Your task to perform on an android device: Open maps Image 0: 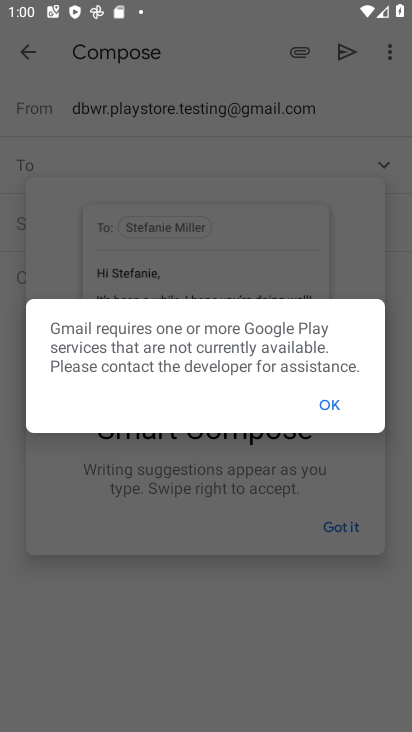
Step 0: press home button
Your task to perform on an android device: Open maps Image 1: 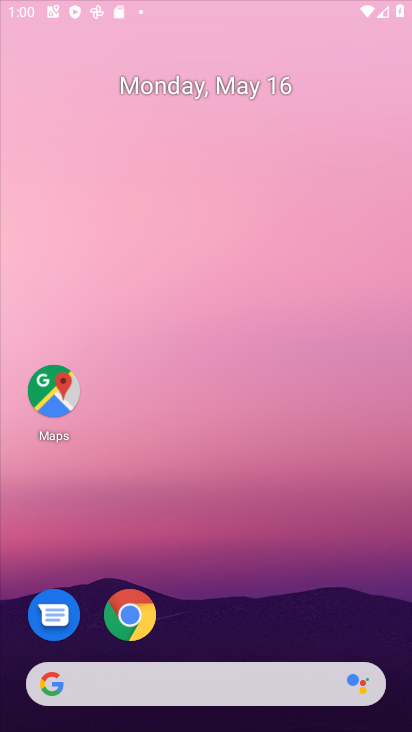
Step 1: drag from (317, 724) to (240, 68)
Your task to perform on an android device: Open maps Image 2: 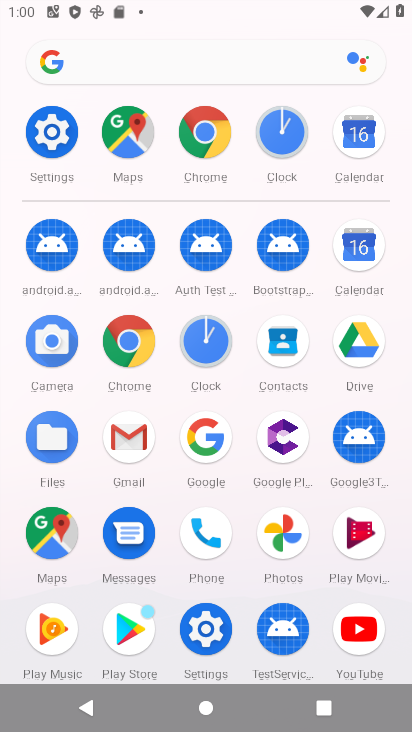
Step 2: click (52, 545)
Your task to perform on an android device: Open maps Image 3: 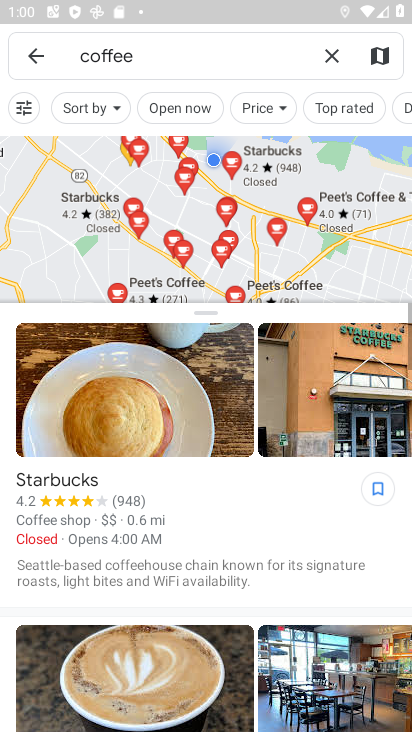
Step 3: task complete